Your task to perform on an android device: open app "Messages" (install if not already installed), go to login, and select forgot password Image 0: 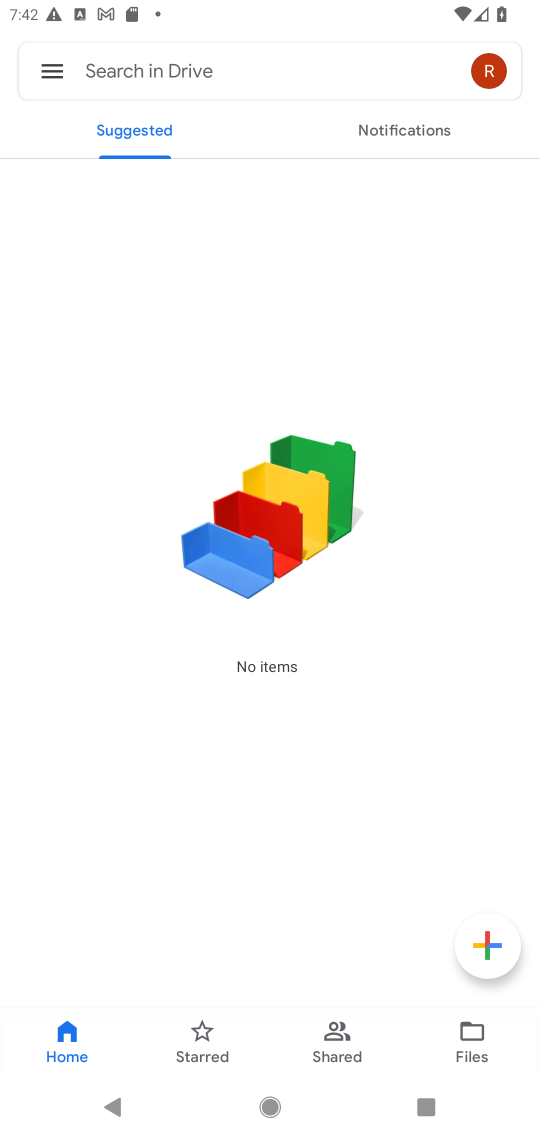
Step 0: press home button
Your task to perform on an android device: open app "Messages" (install if not already installed), go to login, and select forgot password Image 1: 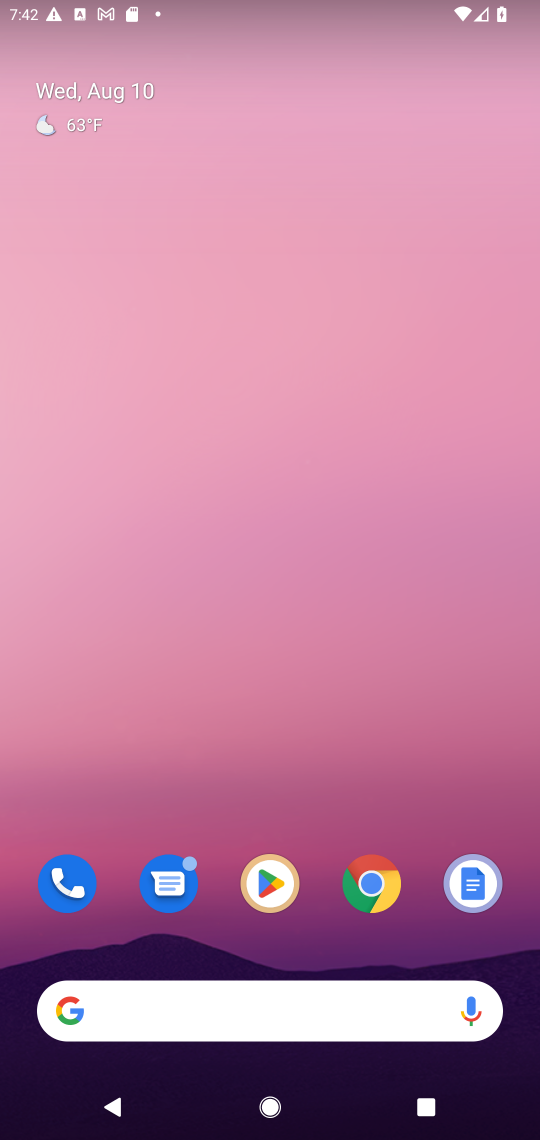
Step 1: click (261, 870)
Your task to perform on an android device: open app "Messages" (install if not already installed), go to login, and select forgot password Image 2: 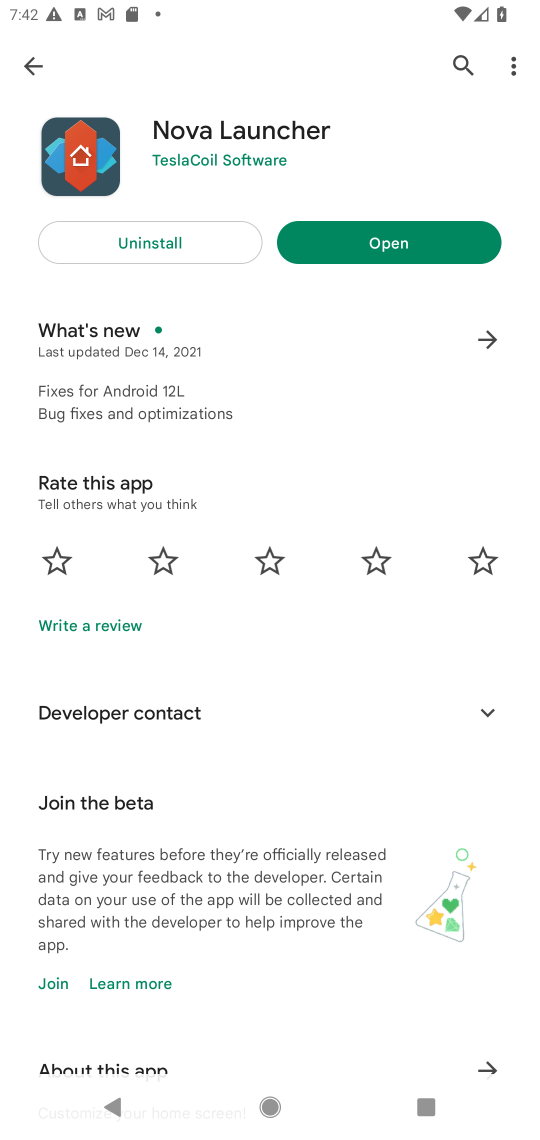
Step 2: click (458, 76)
Your task to perform on an android device: open app "Messages" (install if not already installed), go to login, and select forgot password Image 3: 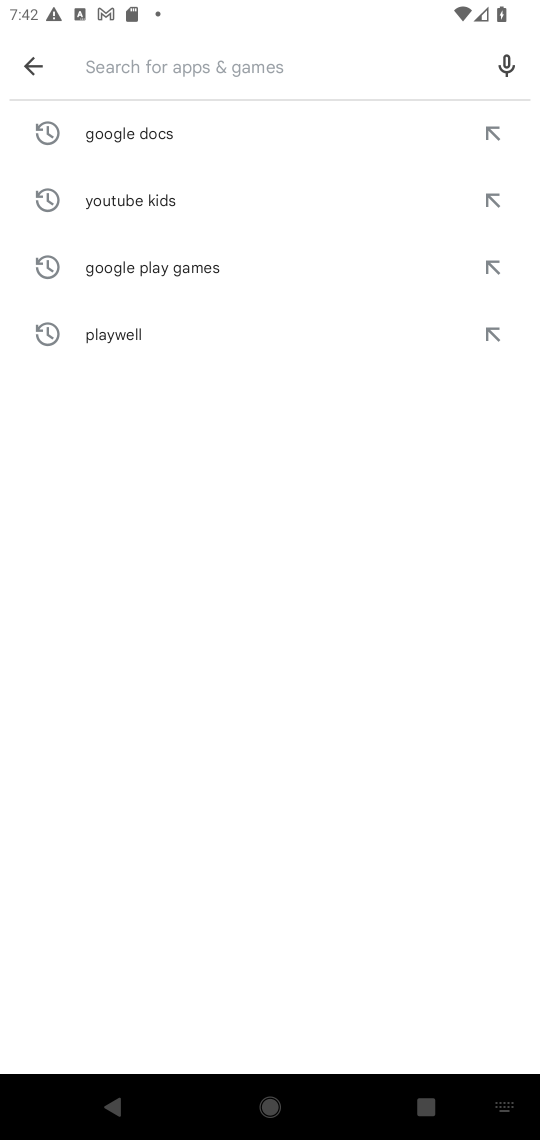
Step 3: click (214, 50)
Your task to perform on an android device: open app "Messages" (install if not already installed), go to login, and select forgot password Image 4: 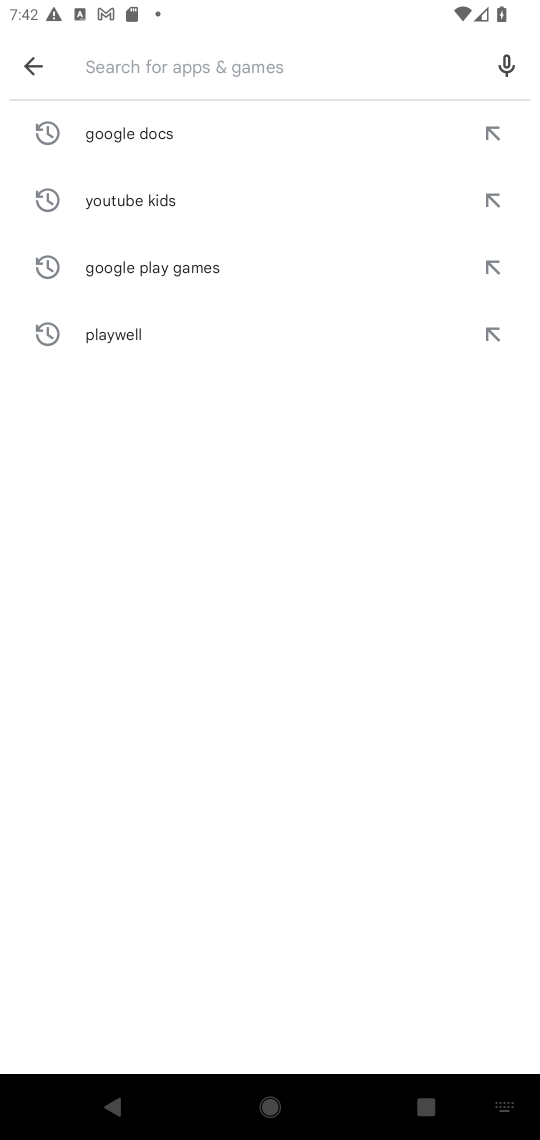
Step 4: type "Messages"
Your task to perform on an android device: open app "Messages" (install if not already installed), go to login, and select forgot password Image 5: 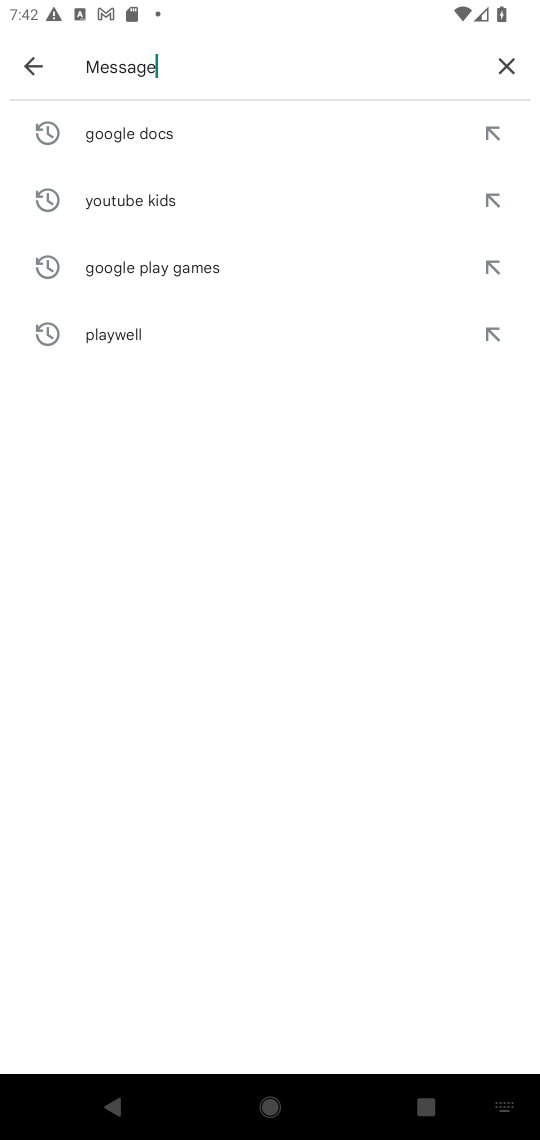
Step 5: type ""
Your task to perform on an android device: open app "Messages" (install if not already installed), go to login, and select forgot password Image 6: 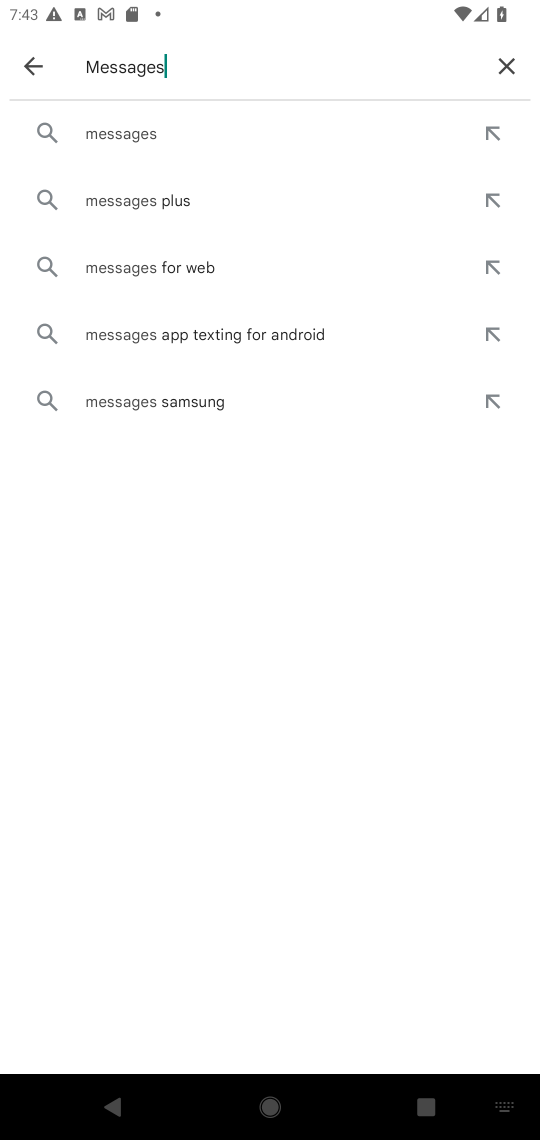
Step 6: click (171, 129)
Your task to perform on an android device: open app "Messages" (install if not already installed), go to login, and select forgot password Image 7: 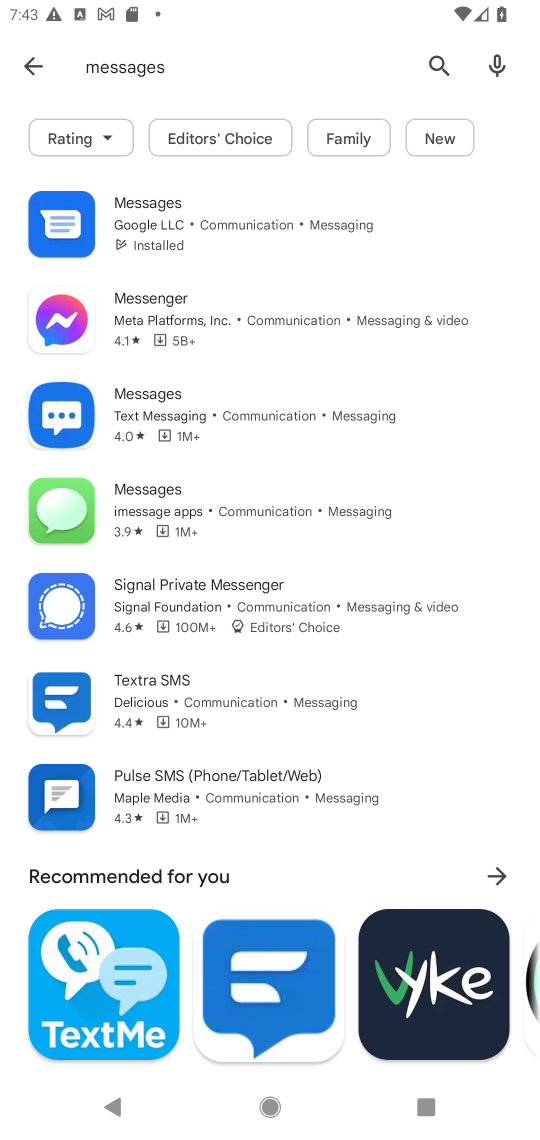
Step 7: click (257, 219)
Your task to perform on an android device: open app "Messages" (install if not already installed), go to login, and select forgot password Image 8: 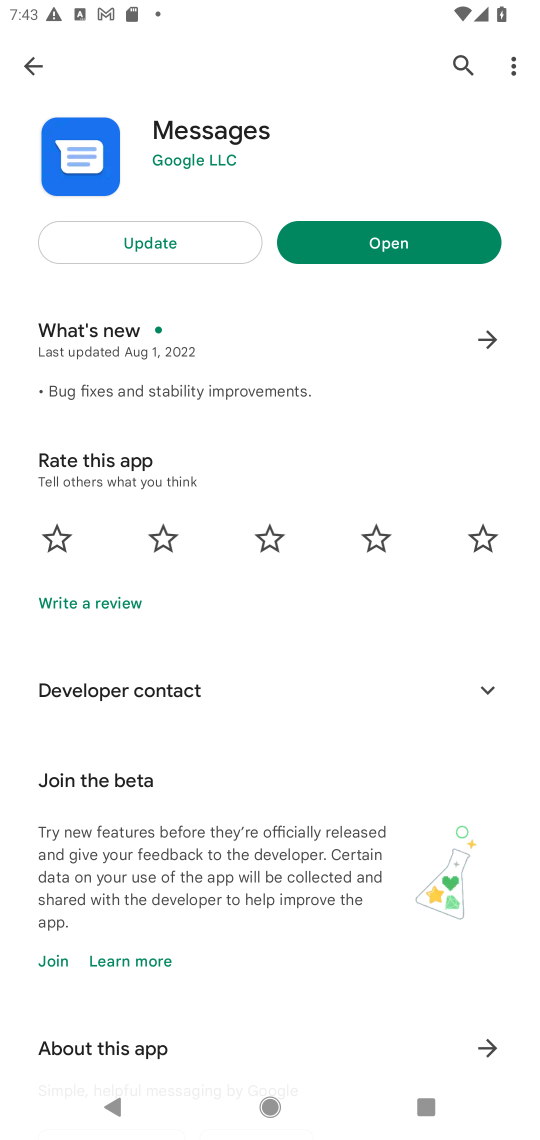
Step 8: click (357, 244)
Your task to perform on an android device: open app "Messages" (install if not already installed), go to login, and select forgot password Image 9: 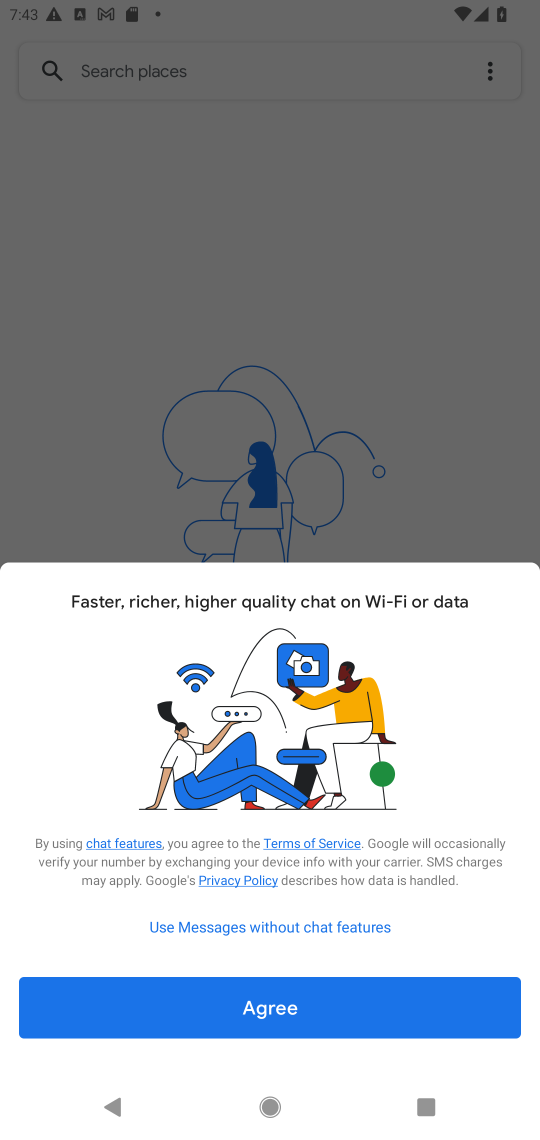
Step 9: press home button
Your task to perform on an android device: open app "Messages" (install if not already installed), go to login, and select forgot password Image 10: 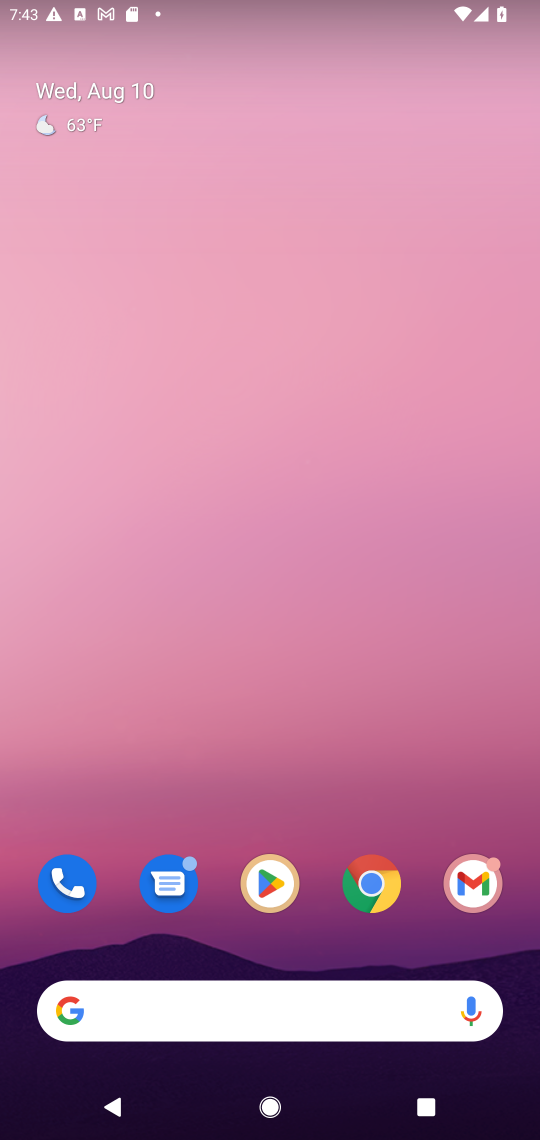
Step 10: click (267, 889)
Your task to perform on an android device: open app "Messages" (install if not already installed), go to login, and select forgot password Image 11: 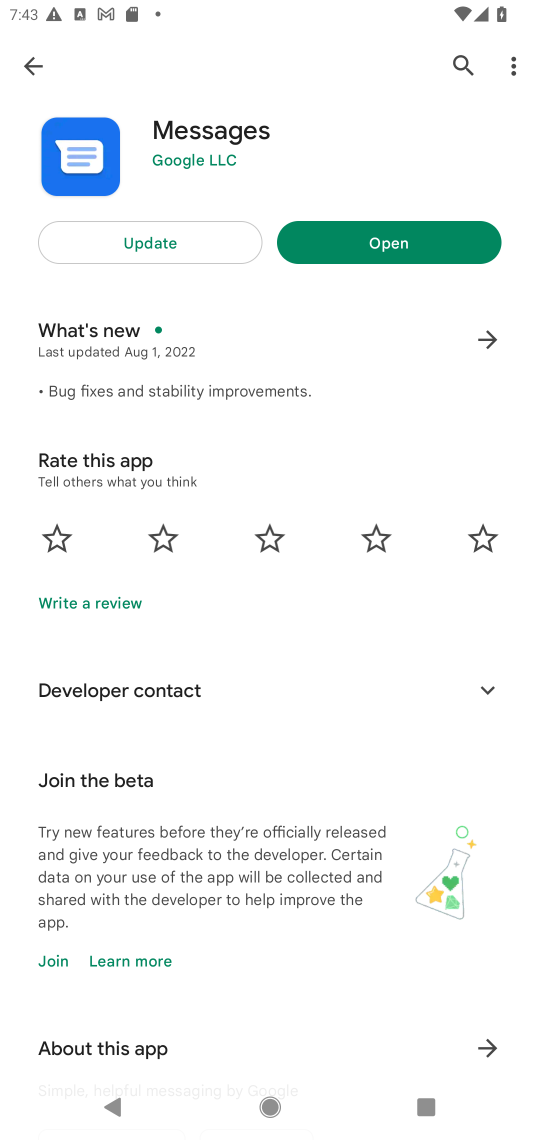
Step 11: click (318, 236)
Your task to perform on an android device: open app "Messages" (install if not already installed), go to login, and select forgot password Image 12: 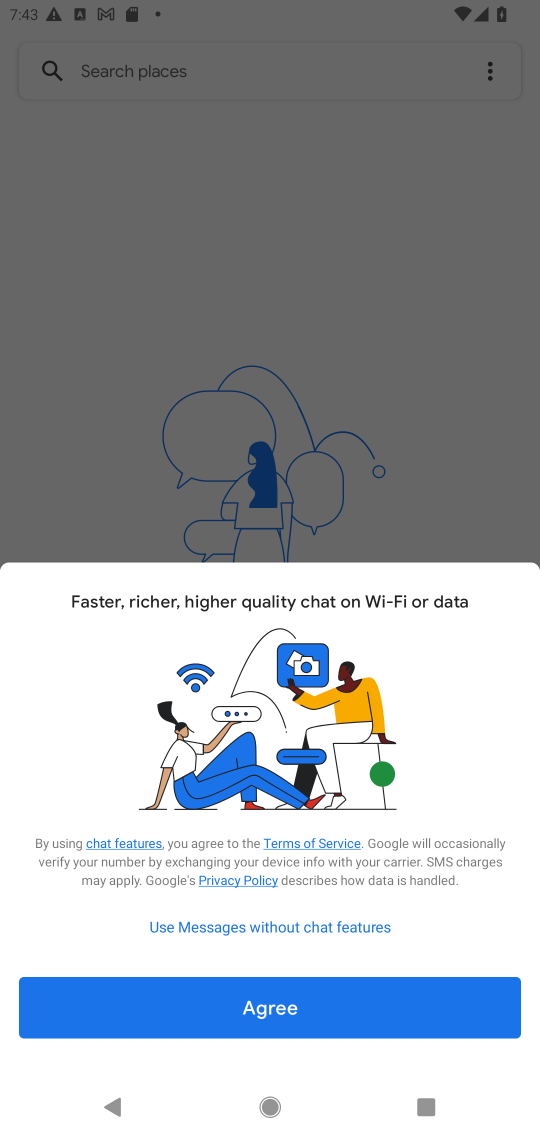
Step 12: task complete